Your task to perform on an android device: Open the Play Movies app and select the watchlist tab. Image 0: 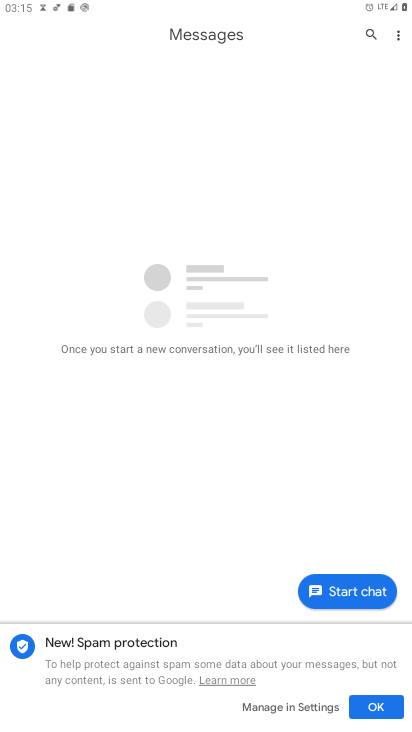
Step 0: press home button
Your task to perform on an android device: Open the Play Movies app and select the watchlist tab. Image 1: 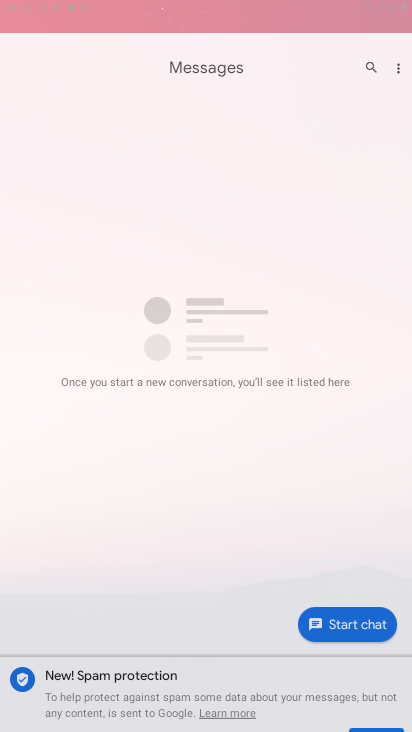
Step 1: drag from (177, 647) to (200, 317)
Your task to perform on an android device: Open the Play Movies app and select the watchlist tab. Image 2: 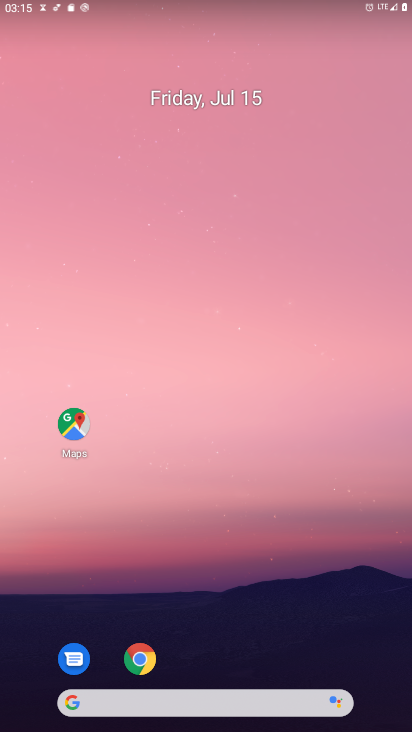
Step 2: drag from (187, 617) to (258, 96)
Your task to perform on an android device: Open the Play Movies app and select the watchlist tab. Image 3: 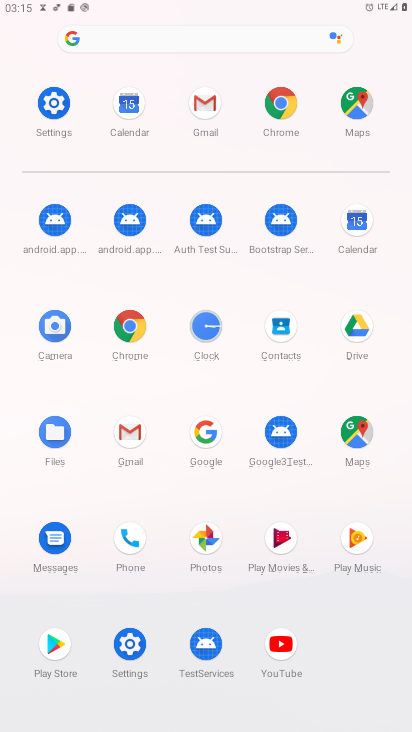
Step 3: click (290, 545)
Your task to perform on an android device: Open the Play Movies app and select the watchlist tab. Image 4: 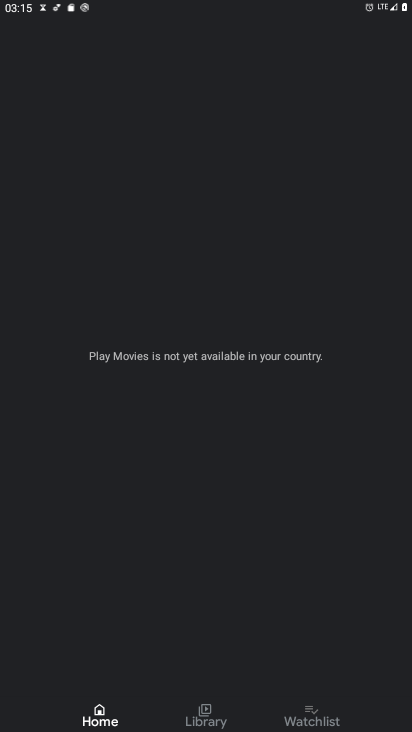
Step 4: click (320, 713)
Your task to perform on an android device: Open the Play Movies app and select the watchlist tab. Image 5: 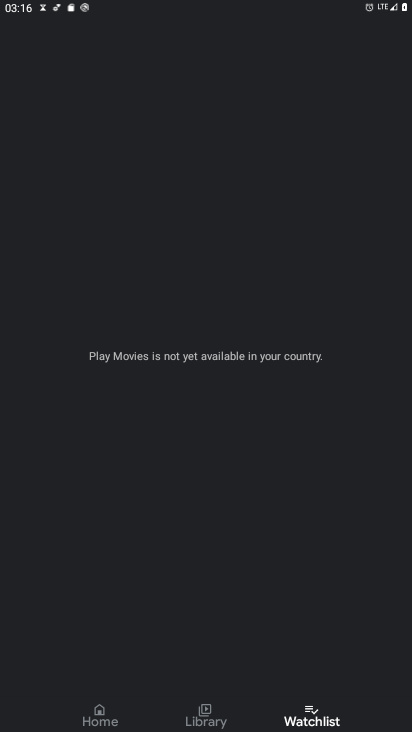
Step 5: task complete